Your task to perform on an android device: Open battery settings Image 0: 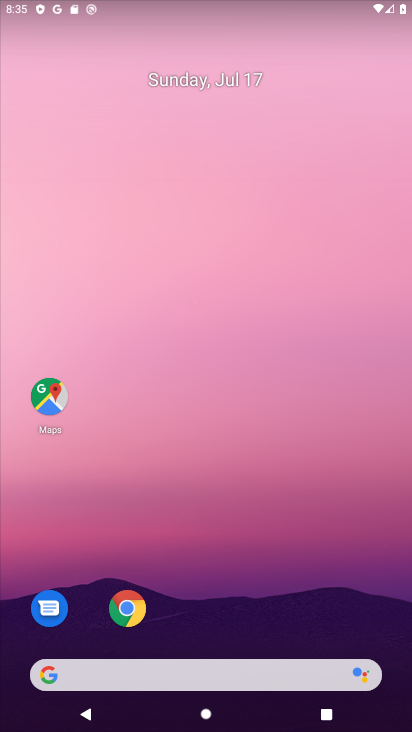
Step 0: drag from (320, 557) to (344, 253)
Your task to perform on an android device: Open battery settings Image 1: 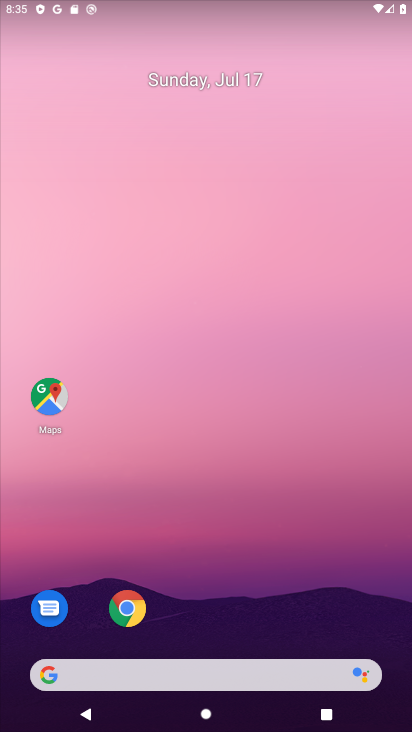
Step 1: drag from (210, 632) to (296, 198)
Your task to perform on an android device: Open battery settings Image 2: 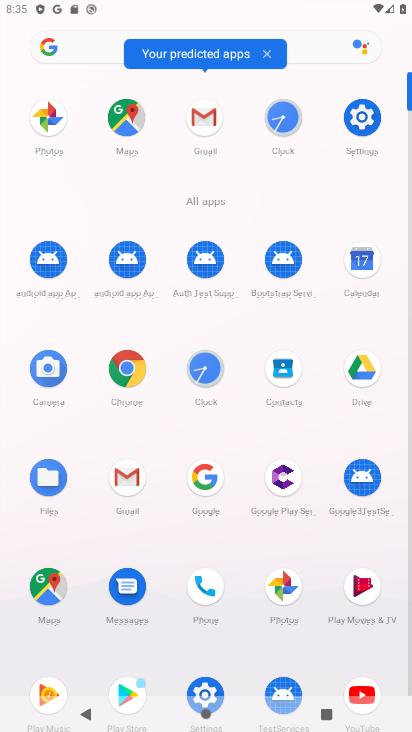
Step 2: click (364, 124)
Your task to perform on an android device: Open battery settings Image 3: 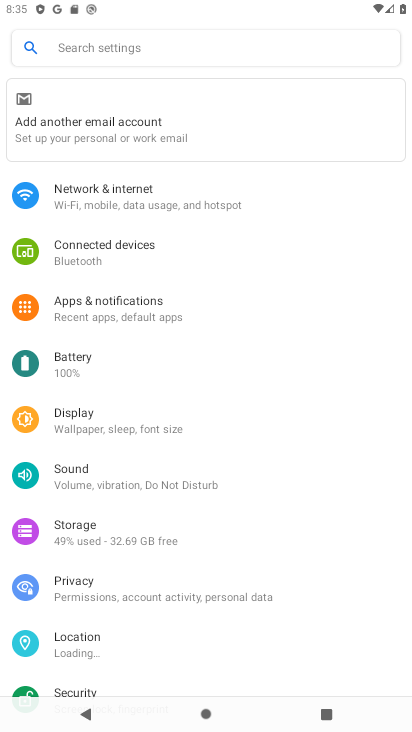
Step 3: click (87, 356)
Your task to perform on an android device: Open battery settings Image 4: 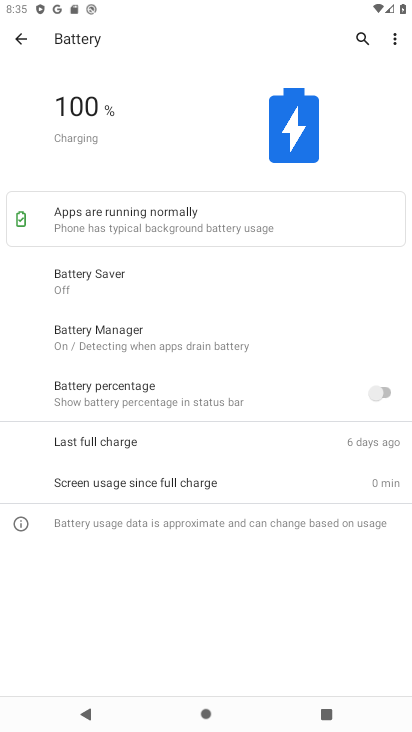
Step 4: task complete